Your task to perform on an android device: toggle priority inbox in the gmail app Image 0: 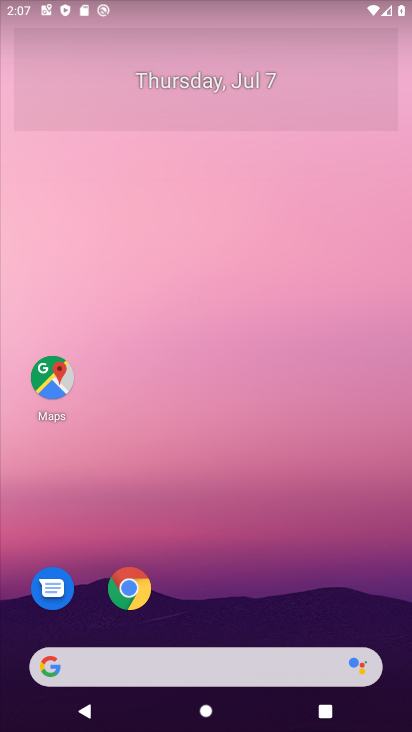
Step 0: drag from (57, 719) to (105, 229)
Your task to perform on an android device: toggle priority inbox in the gmail app Image 1: 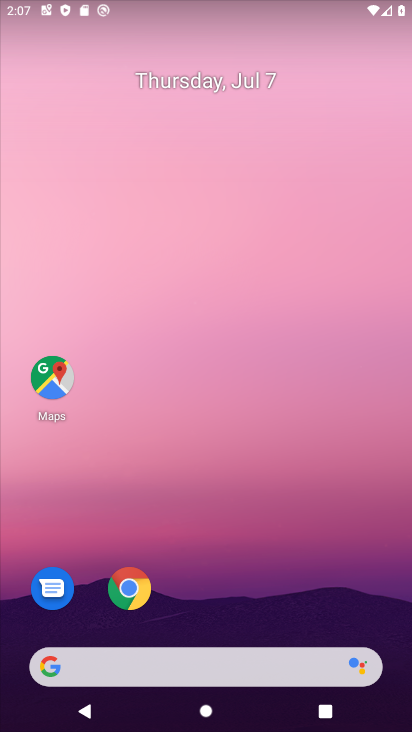
Step 1: drag from (21, 706) to (143, 186)
Your task to perform on an android device: toggle priority inbox in the gmail app Image 2: 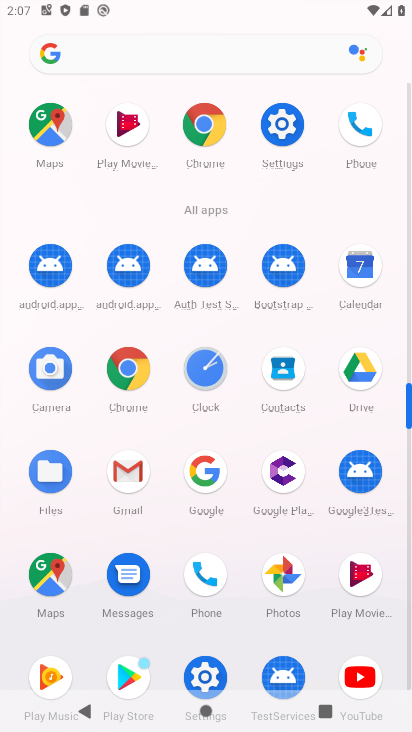
Step 2: click (128, 465)
Your task to perform on an android device: toggle priority inbox in the gmail app Image 3: 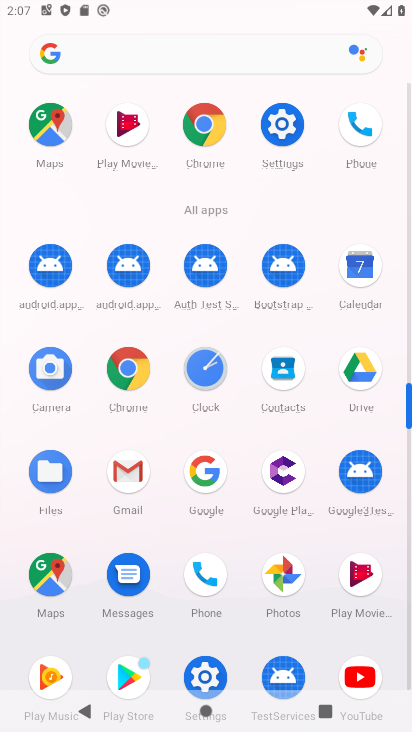
Step 3: click (128, 465)
Your task to perform on an android device: toggle priority inbox in the gmail app Image 4: 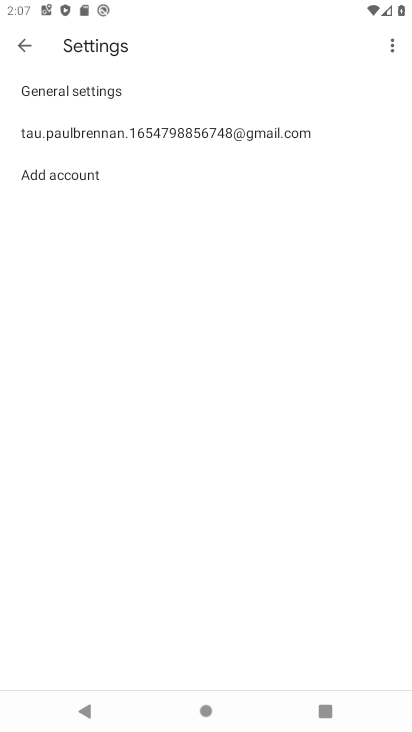
Step 4: click (21, 44)
Your task to perform on an android device: toggle priority inbox in the gmail app Image 5: 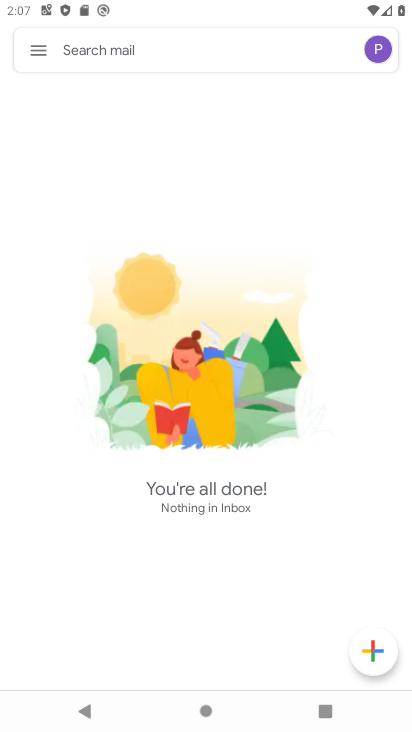
Step 5: click (40, 42)
Your task to perform on an android device: toggle priority inbox in the gmail app Image 6: 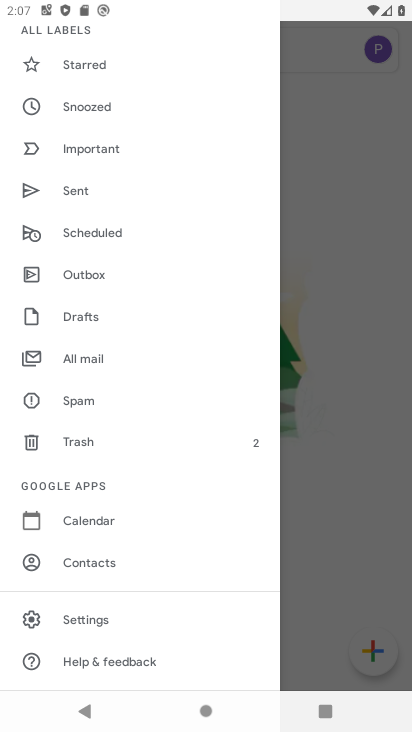
Step 6: click (91, 621)
Your task to perform on an android device: toggle priority inbox in the gmail app Image 7: 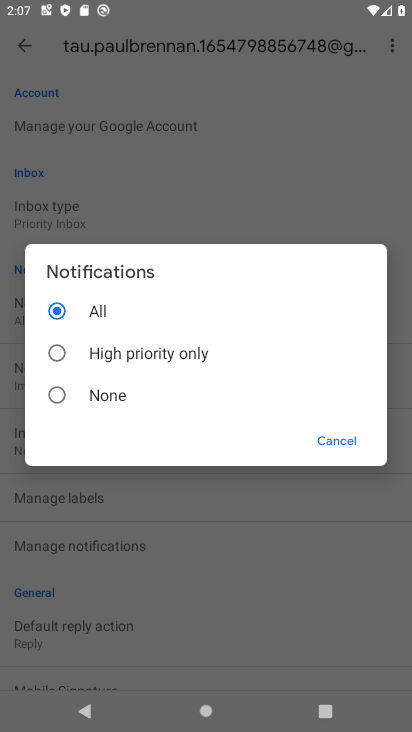
Step 7: click (341, 443)
Your task to perform on an android device: toggle priority inbox in the gmail app Image 8: 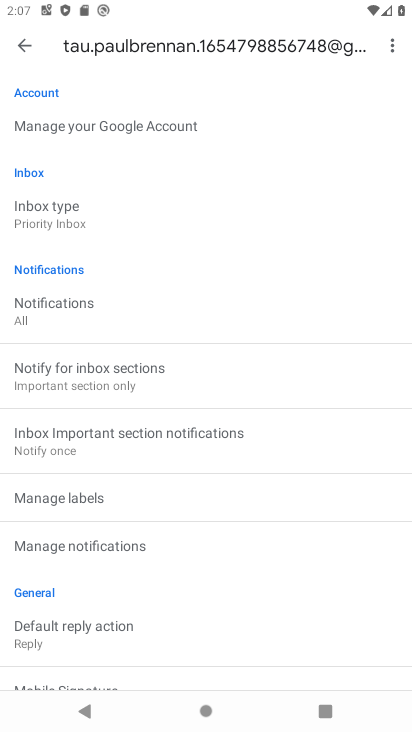
Step 8: click (60, 220)
Your task to perform on an android device: toggle priority inbox in the gmail app Image 9: 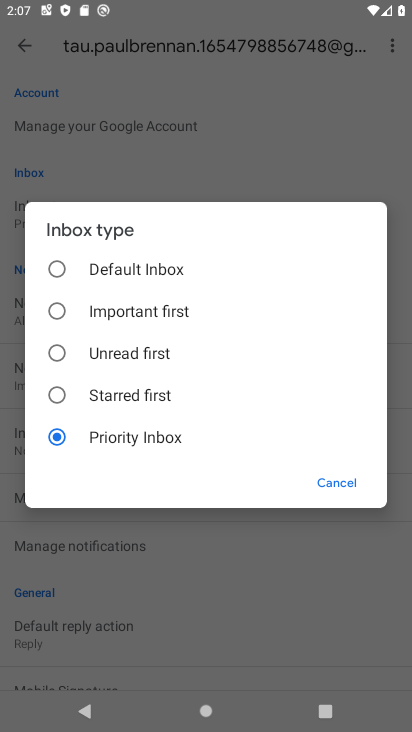
Step 9: click (122, 434)
Your task to perform on an android device: toggle priority inbox in the gmail app Image 10: 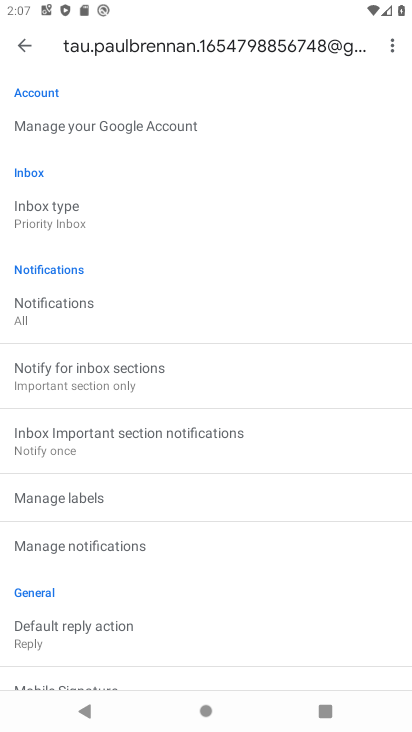
Step 10: task complete